Your task to perform on an android device: Show the shopping cart on ebay.com. Search for "lenovo thinkpad" on ebay.com, select the first entry, add it to the cart, then select checkout. Image 0: 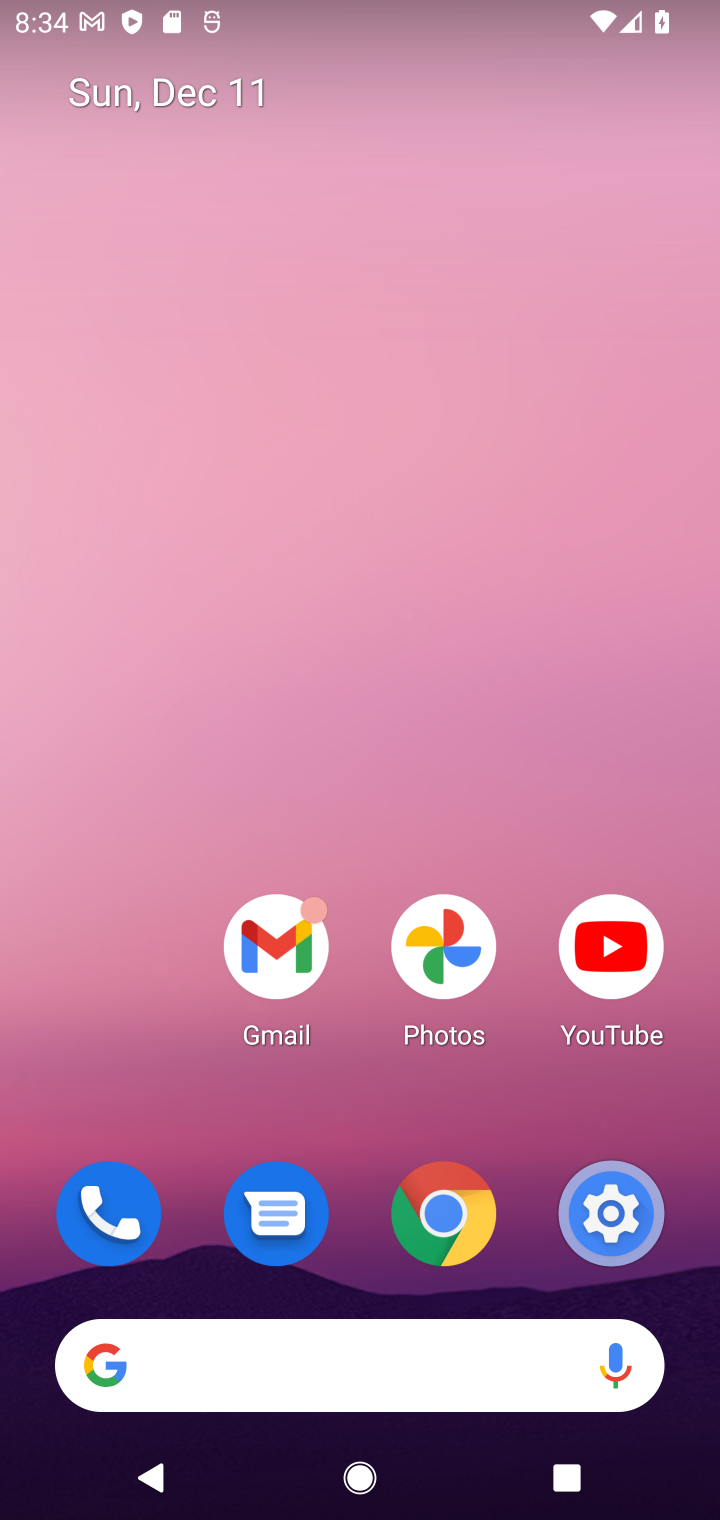
Step 0: click (356, 1379)
Your task to perform on an android device: Show the shopping cart on ebay.com. Search for "lenovo thinkpad" on ebay.com, select the first entry, add it to the cart, then select checkout. Image 1: 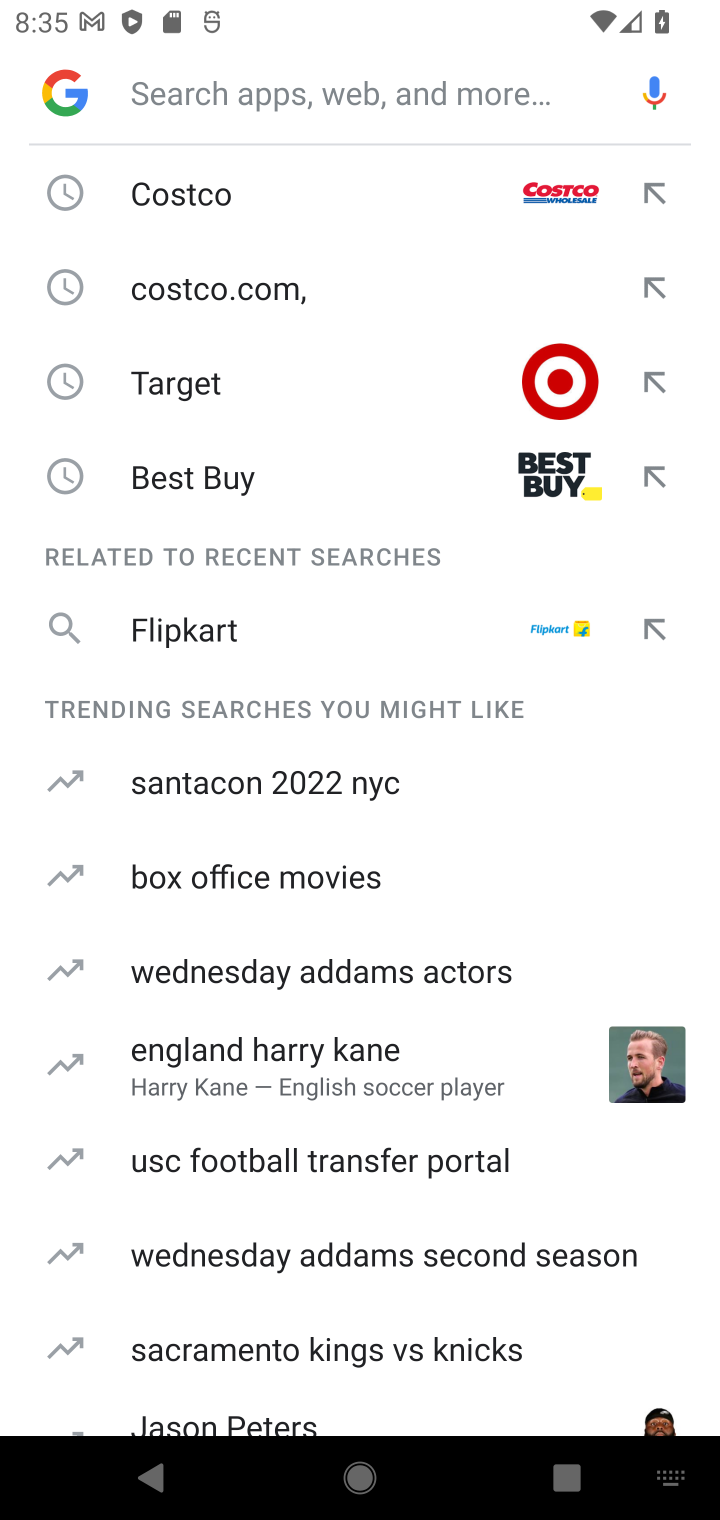
Step 1: type "ebay"
Your task to perform on an android device: Show the shopping cart on ebay.com. Search for "lenovo thinkpad" on ebay.com, select the first entry, add it to the cart, then select checkout. Image 2: 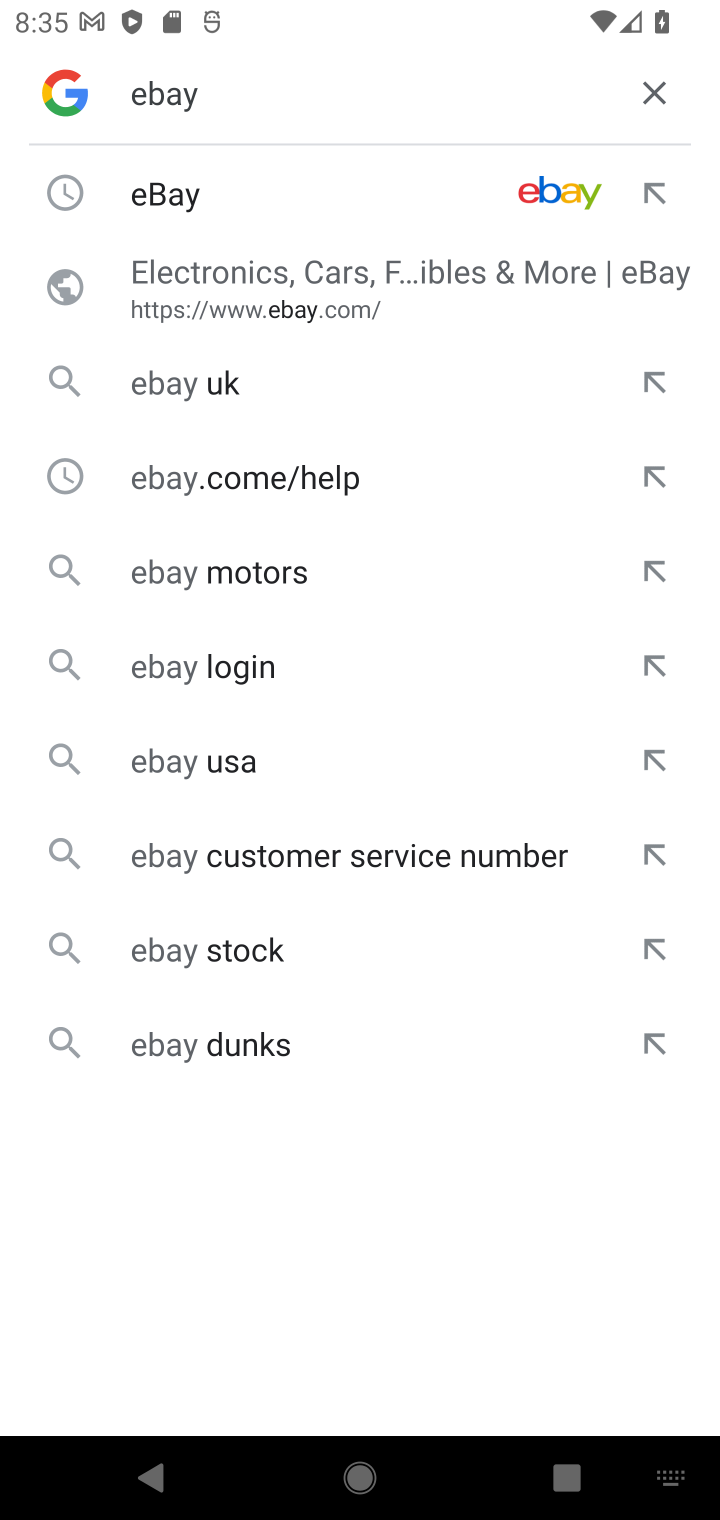
Step 2: click (301, 218)
Your task to perform on an android device: Show the shopping cart on ebay.com. Search for "lenovo thinkpad" on ebay.com, select the first entry, add it to the cart, then select checkout. Image 3: 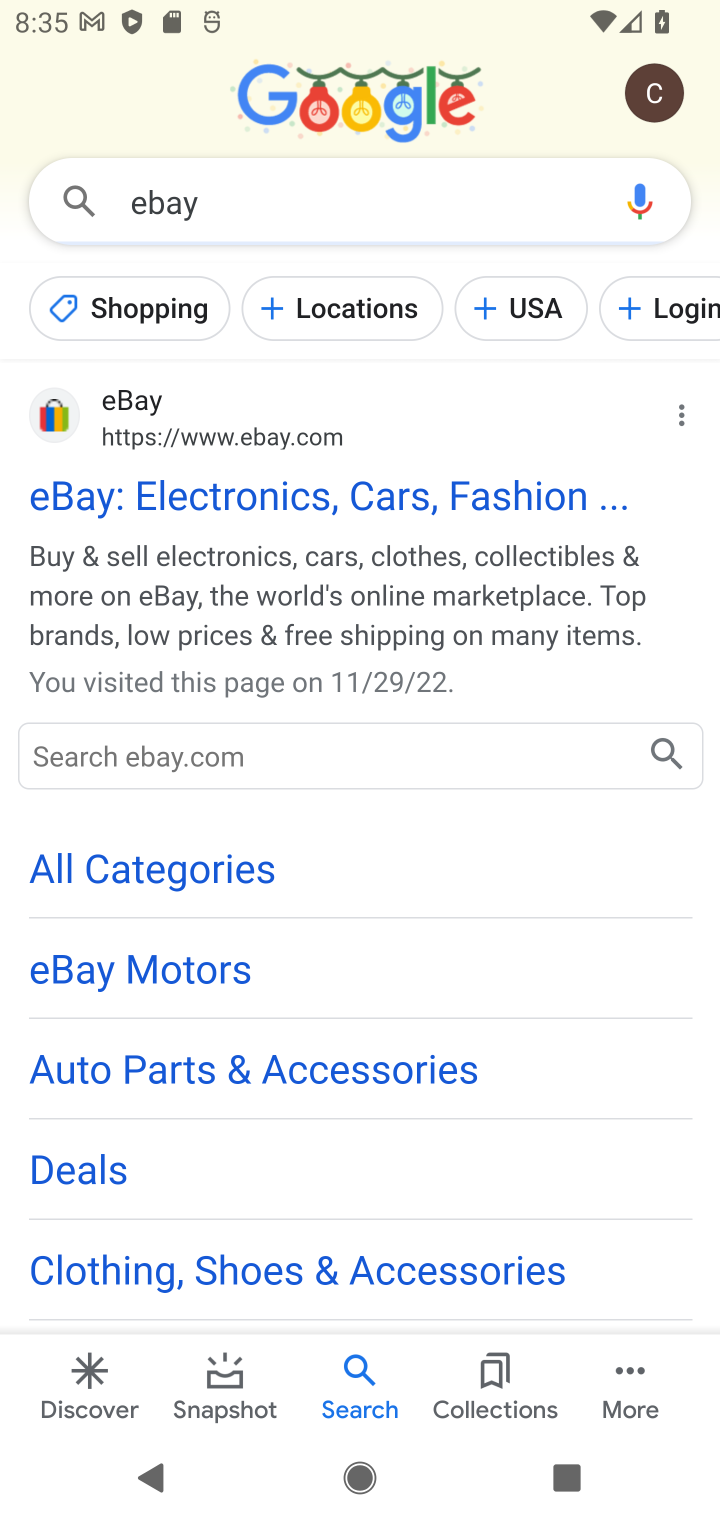
Step 3: click (227, 518)
Your task to perform on an android device: Show the shopping cart on ebay.com. Search for "lenovo thinkpad" on ebay.com, select the first entry, add it to the cart, then select checkout. Image 4: 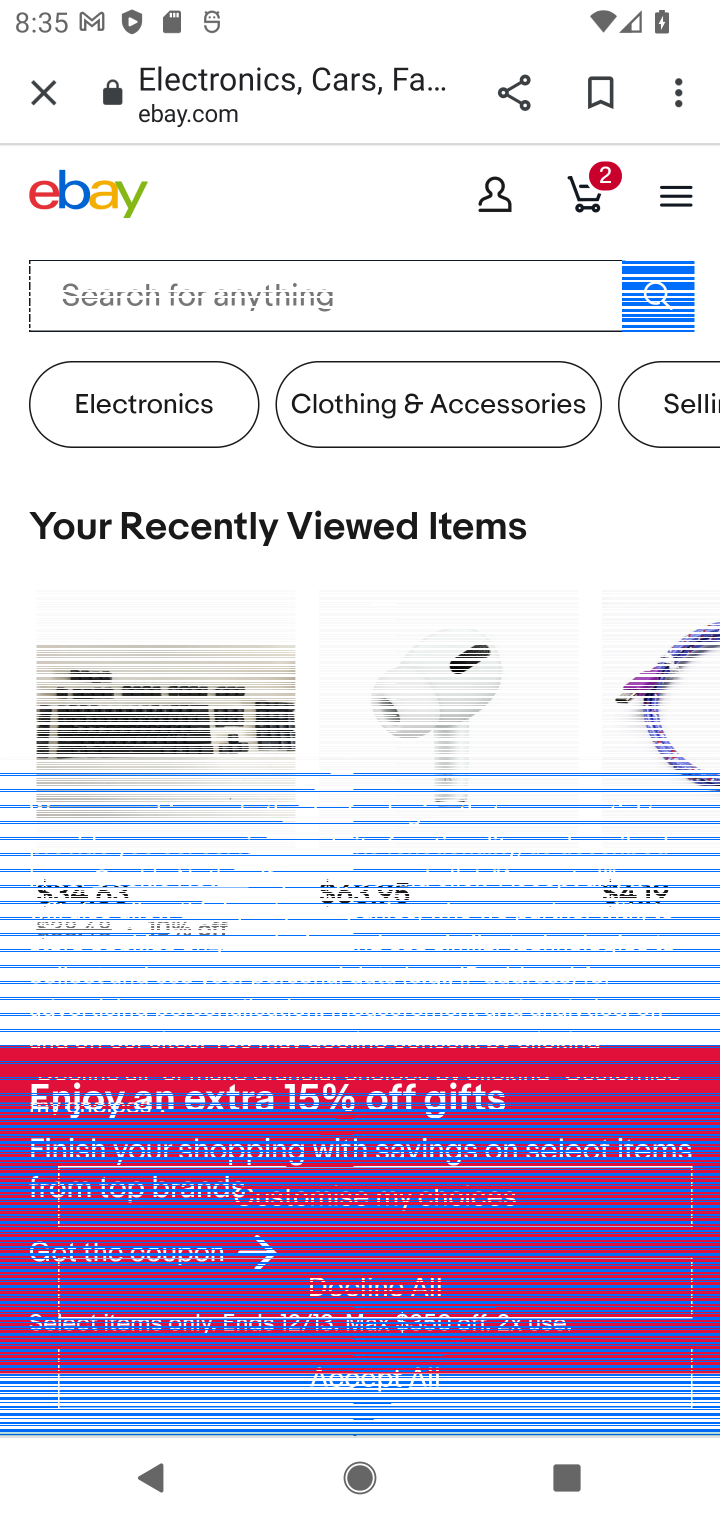
Step 4: task complete